Your task to perform on an android device: add a contact Image 0: 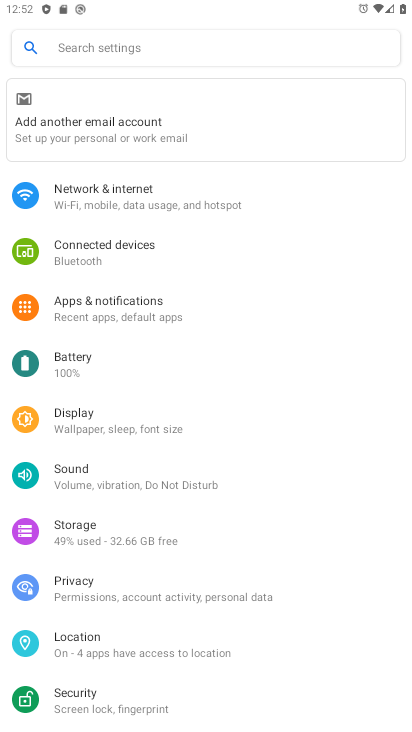
Step 0: press home button
Your task to perform on an android device: add a contact Image 1: 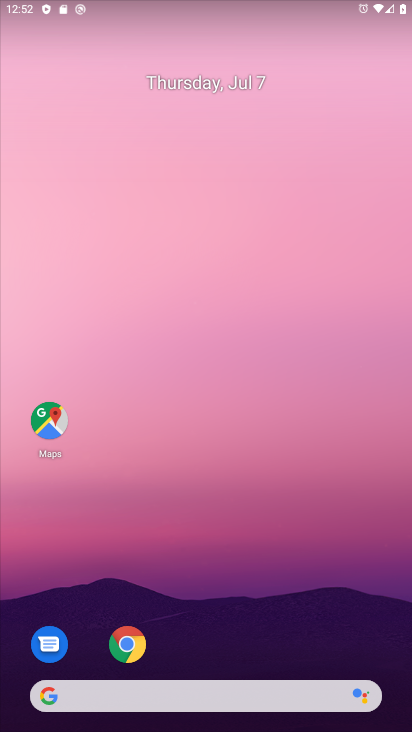
Step 1: drag from (21, 694) to (226, 8)
Your task to perform on an android device: add a contact Image 2: 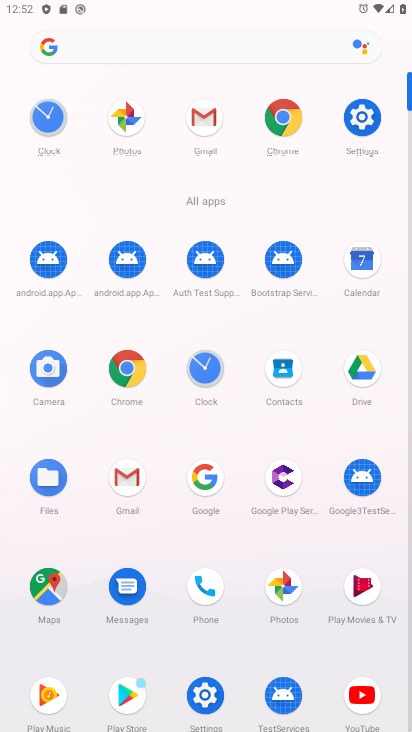
Step 2: click (294, 372)
Your task to perform on an android device: add a contact Image 3: 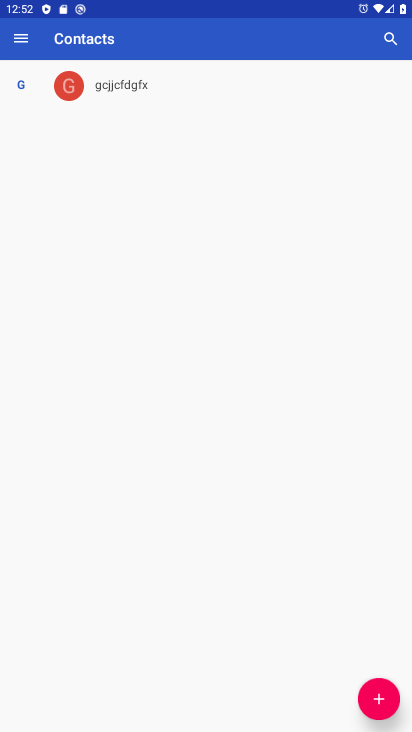
Step 3: click (366, 690)
Your task to perform on an android device: add a contact Image 4: 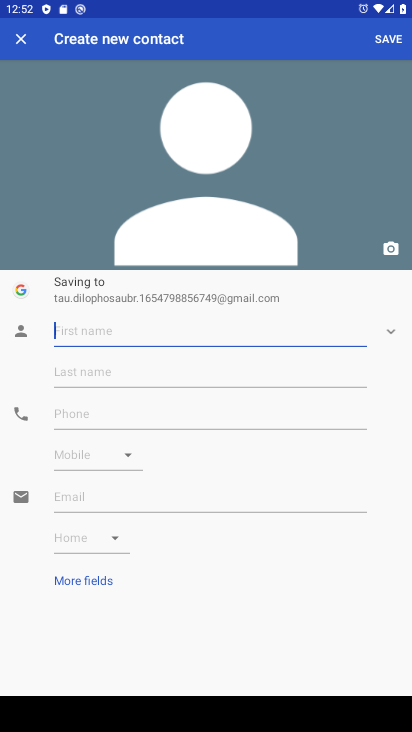
Step 4: click (161, 331)
Your task to perform on an android device: add a contact Image 5: 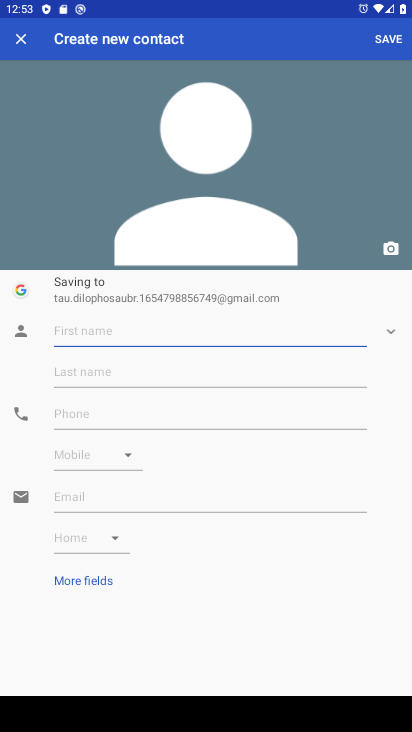
Step 5: type "masoom"
Your task to perform on an android device: add a contact Image 6: 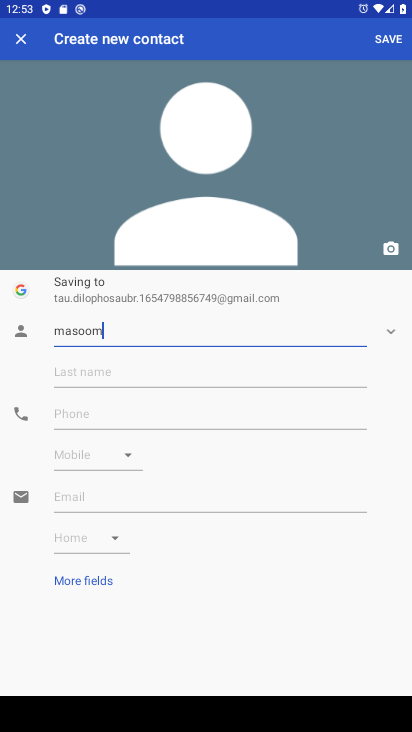
Step 6: type ""
Your task to perform on an android device: add a contact Image 7: 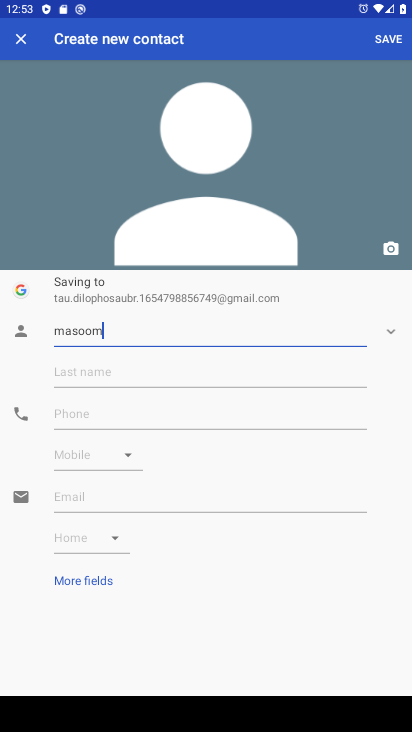
Step 7: click (382, 37)
Your task to perform on an android device: add a contact Image 8: 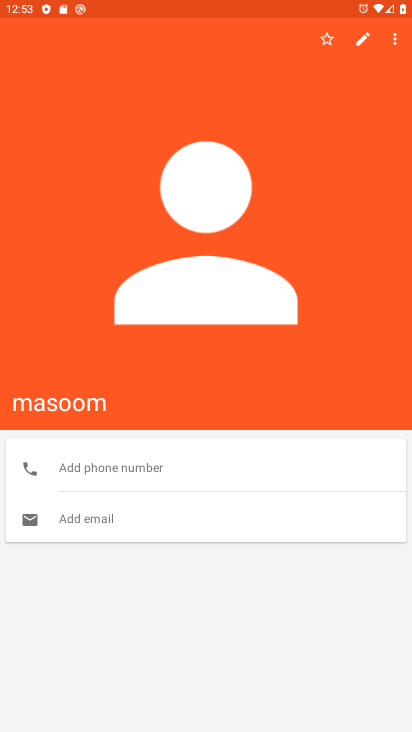
Step 8: task complete